Your task to perform on an android device: Open Chrome and go to settings Image 0: 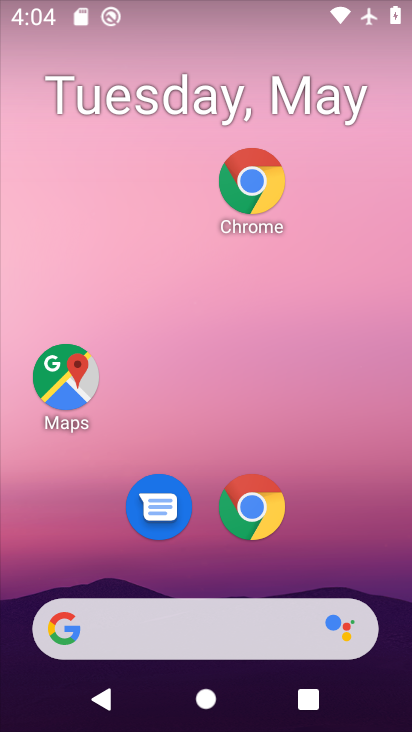
Step 0: drag from (372, 525) to (359, 122)
Your task to perform on an android device: Open Chrome and go to settings Image 1: 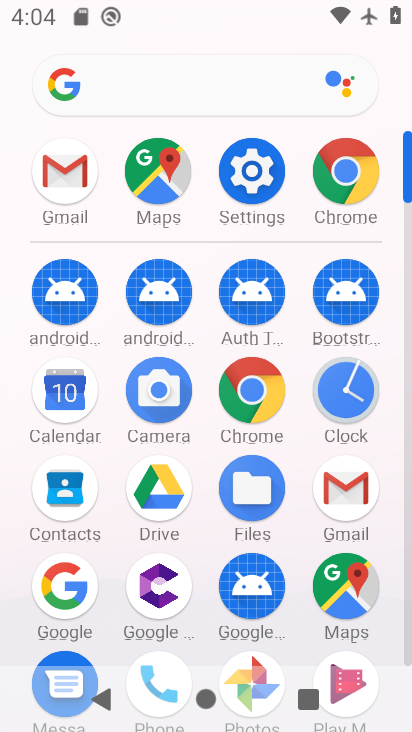
Step 1: click (268, 195)
Your task to perform on an android device: Open Chrome and go to settings Image 2: 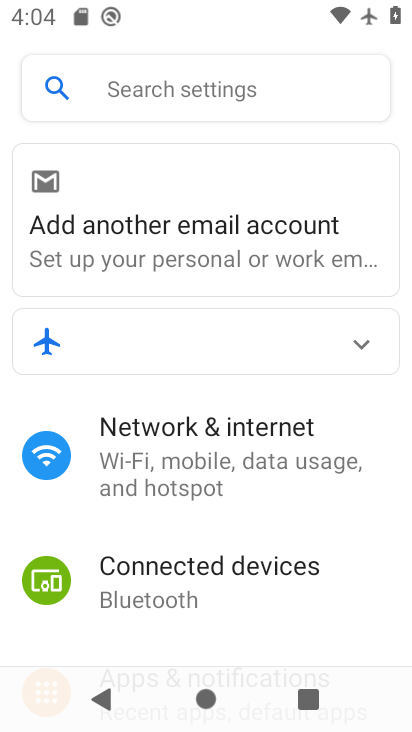
Step 2: press home button
Your task to perform on an android device: Open Chrome and go to settings Image 3: 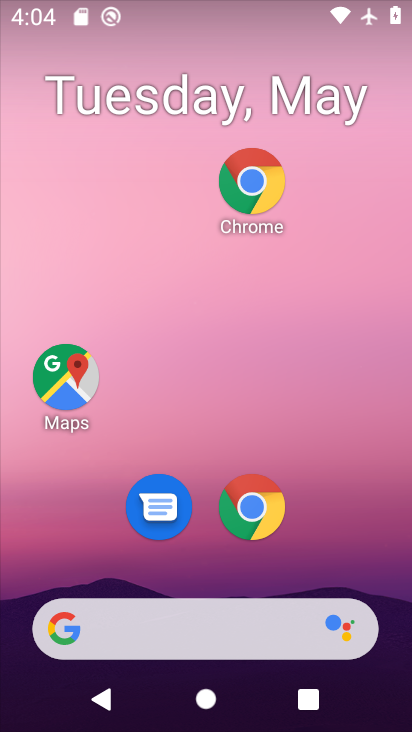
Step 3: drag from (343, 566) to (355, 209)
Your task to perform on an android device: Open Chrome and go to settings Image 4: 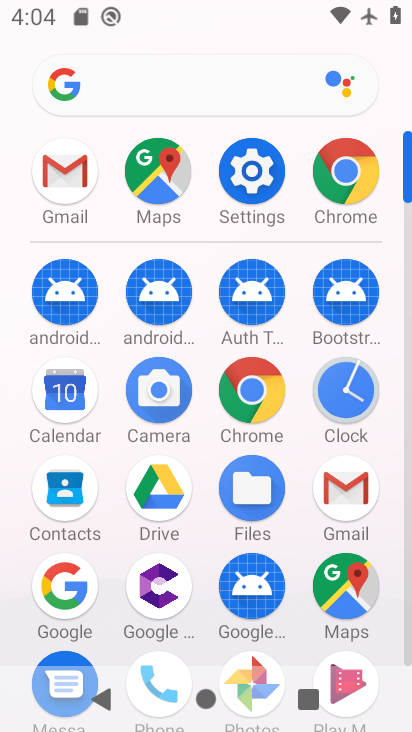
Step 4: click (356, 207)
Your task to perform on an android device: Open Chrome and go to settings Image 5: 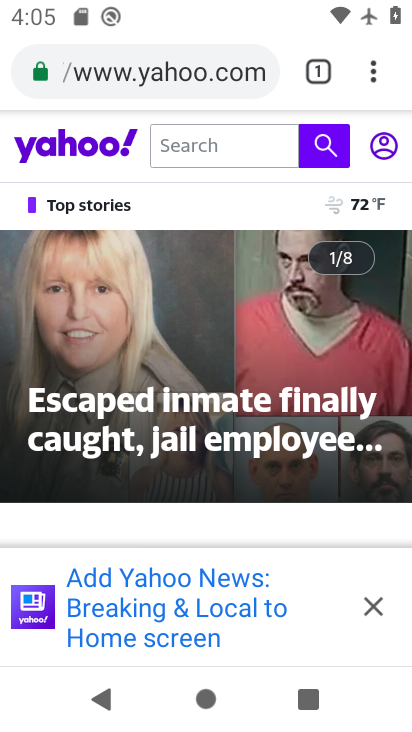
Step 5: click (385, 81)
Your task to perform on an android device: Open Chrome and go to settings Image 6: 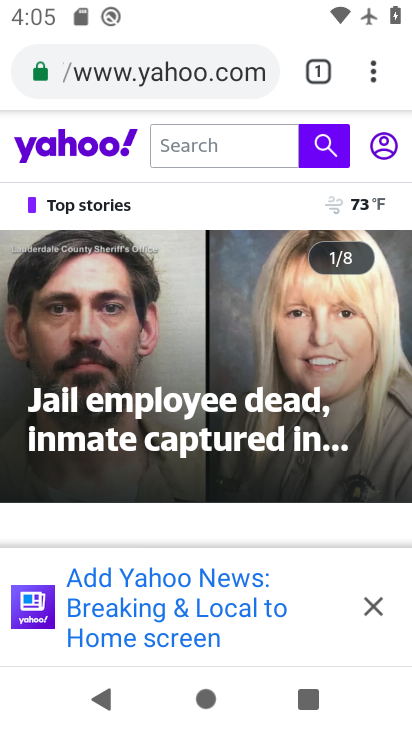
Step 6: click (365, 61)
Your task to perform on an android device: Open Chrome and go to settings Image 7: 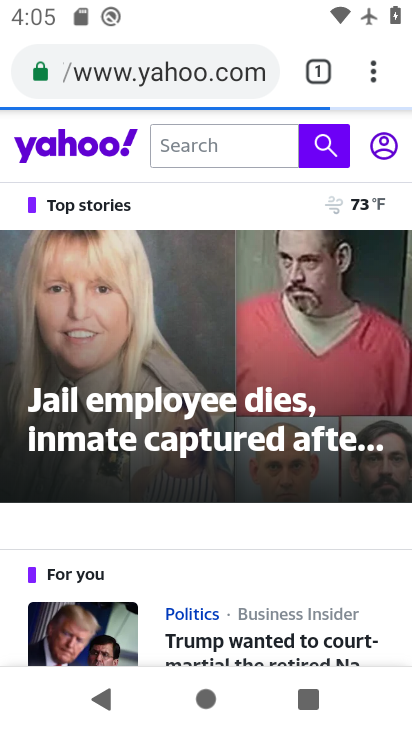
Step 7: task complete